Your task to perform on an android device: Open Chrome and go to settings Image 0: 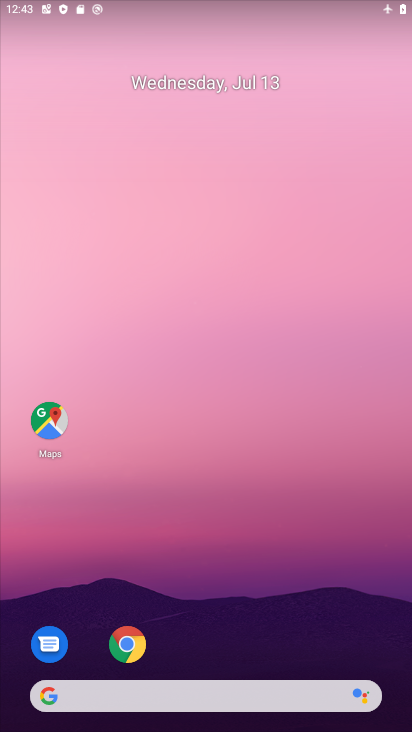
Step 0: drag from (286, 663) to (240, 88)
Your task to perform on an android device: Open Chrome and go to settings Image 1: 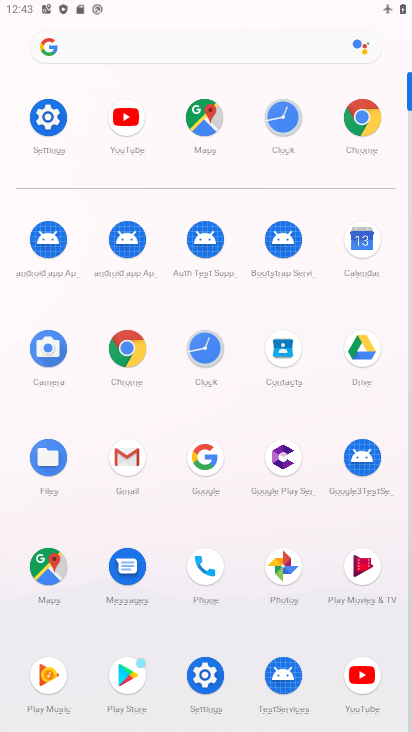
Step 1: click (128, 348)
Your task to perform on an android device: Open Chrome and go to settings Image 2: 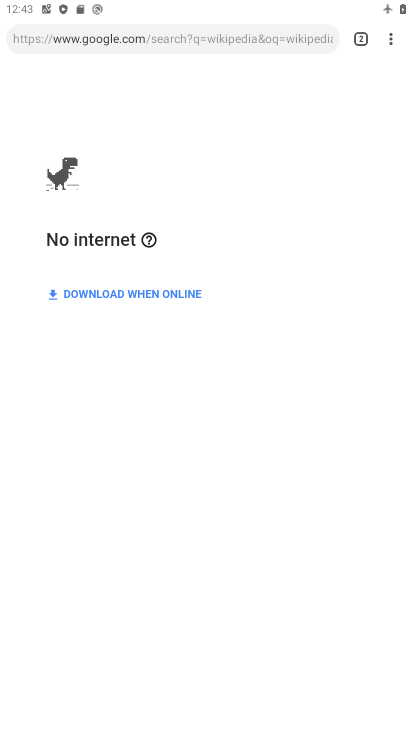
Step 2: task complete